Your task to perform on an android device: toggle notification dots Image 0: 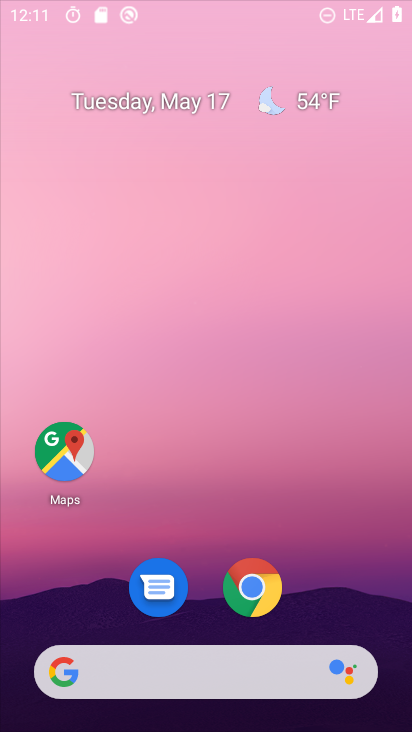
Step 0: click (235, 319)
Your task to perform on an android device: toggle notification dots Image 1: 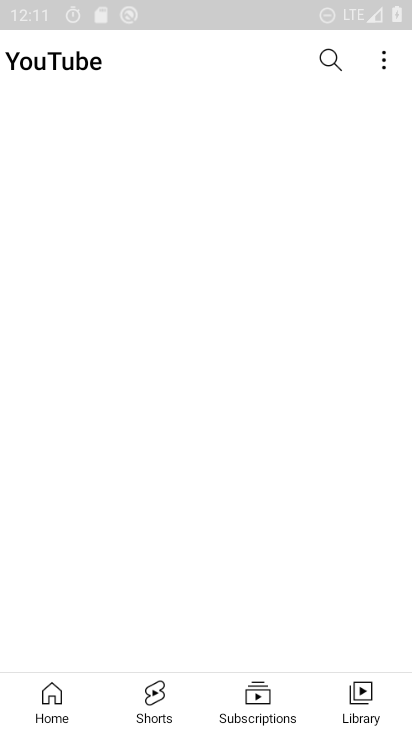
Step 1: drag from (218, 615) to (316, 97)
Your task to perform on an android device: toggle notification dots Image 2: 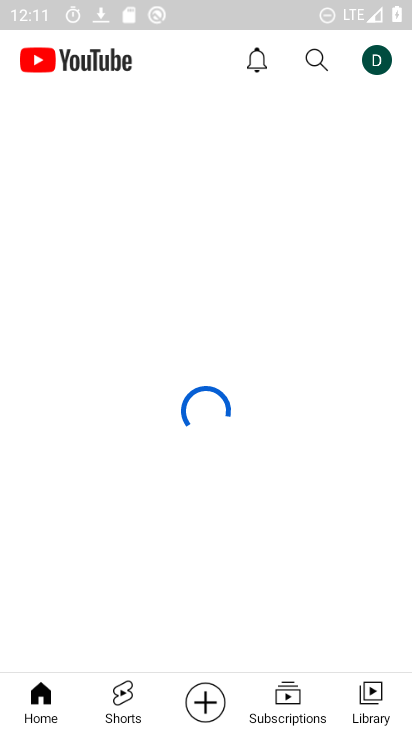
Step 2: press home button
Your task to perform on an android device: toggle notification dots Image 3: 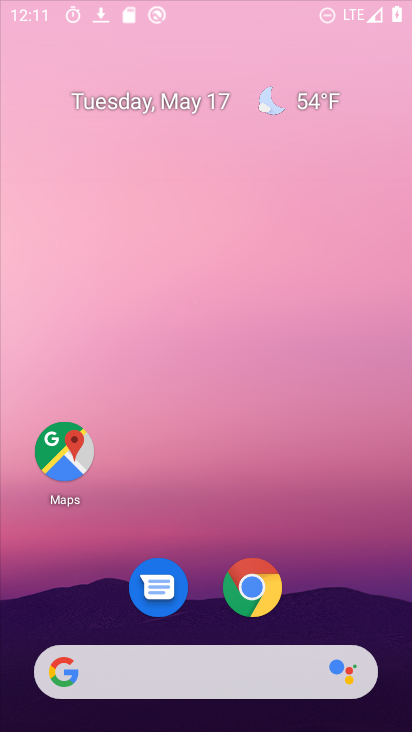
Step 3: drag from (183, 629) to (209, 41)
Your task to perform on an android device: toggle notification dots Image 4: 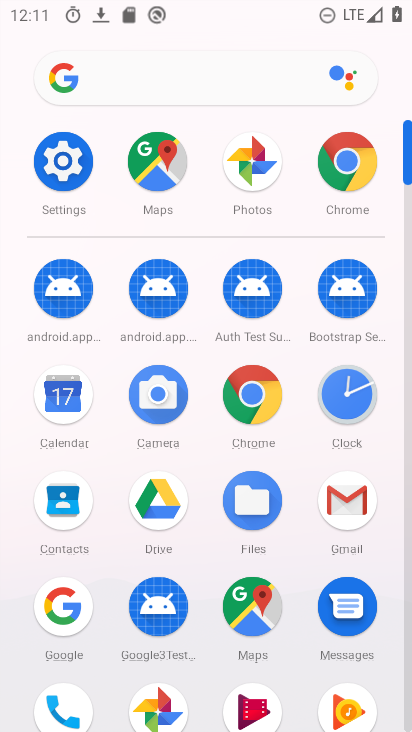
Step 4: click (55, 168)
Your task to perform on an android device: toggle notification dots Image 5: 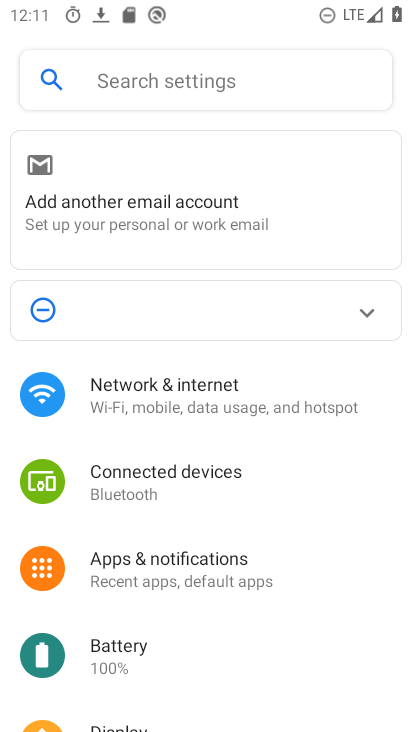
Step 5: drag from (187, 567) to (297, 96)
Your task to perform on an android device: toggle notification dots Image 6: 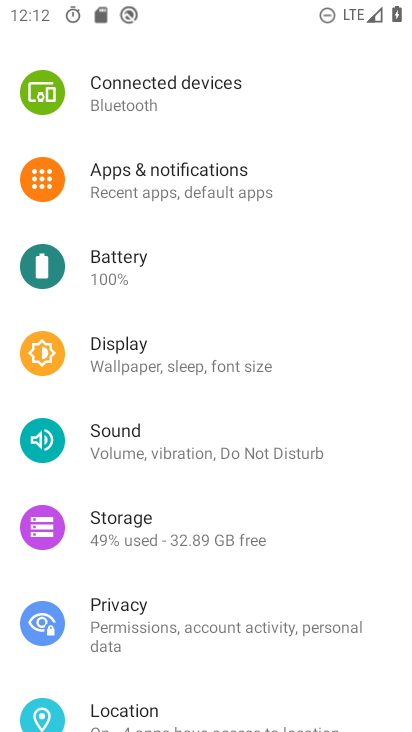
Step 6: click (226, 209)
Your task to perform on an android device: toggle notification dots Image 7: 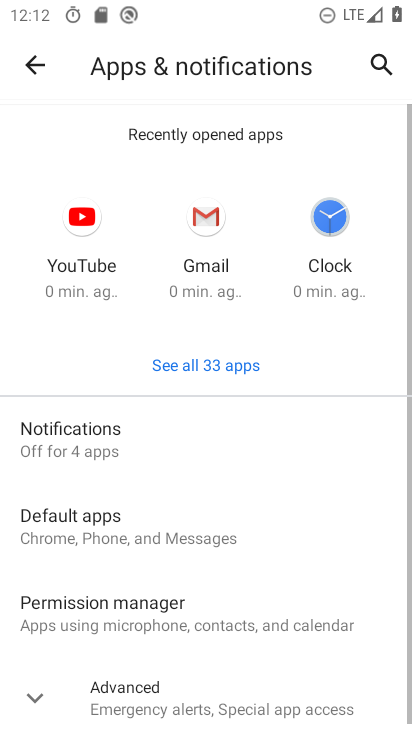
Step 7: drag from (198, 534) to (230, 192)
Your task to perform on an android device: toggle notification dots Image 8: 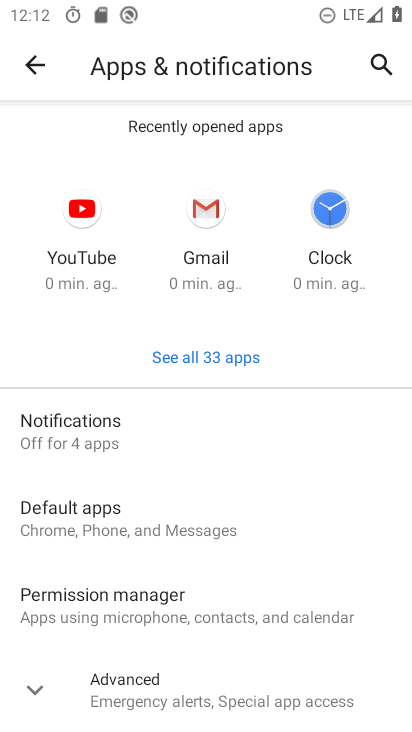
Step 8: click (127, 687)
Your task to perform on an android device: toggle notification dots Image 9: 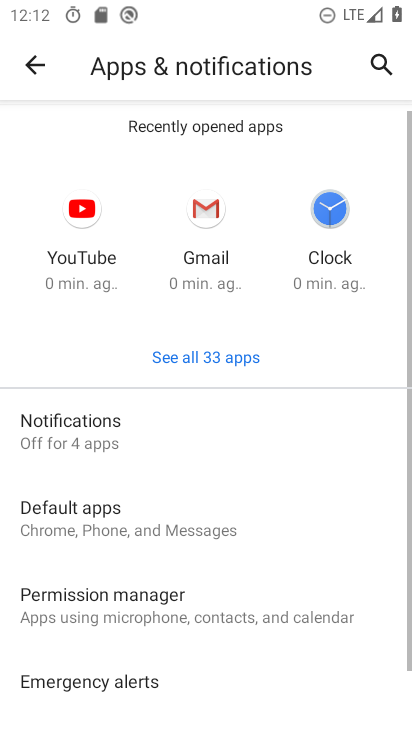
Step 9: drag from (126, 681) to (197, 238)
Your task to perform on an android device: toggle notification dots Image 10: 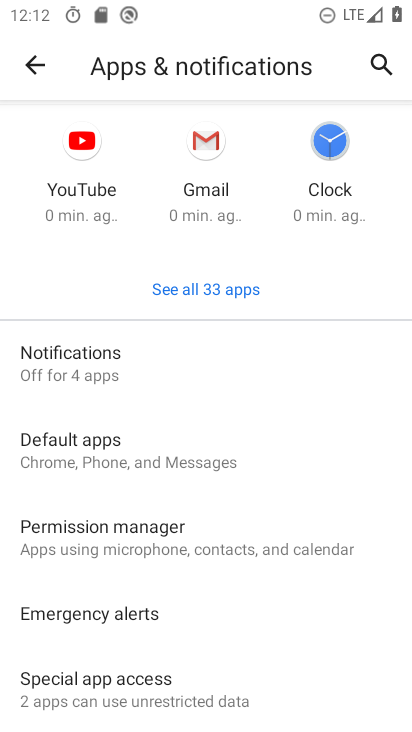
Step 10: click (170, 333)
Your task to perform on an android device: toggle notification dots Image 11: 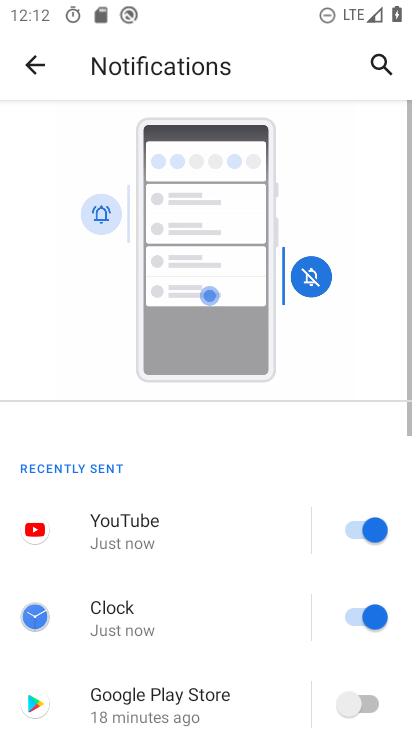
Step 11: drag from (277, 640) to (324, 238)
Your task to perform on an android device: toggle notification dots Image 12: 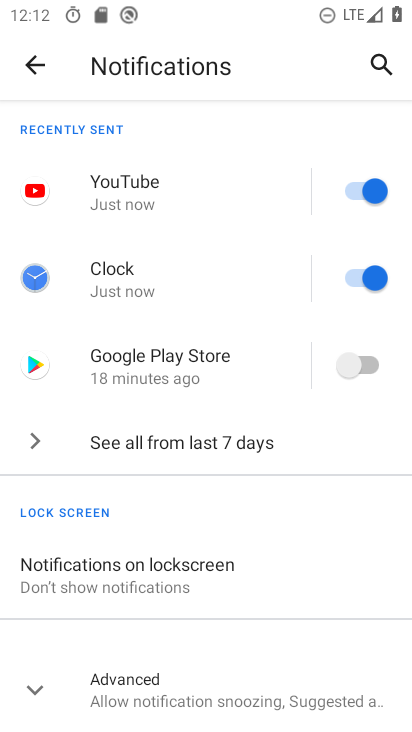
Step 12: click (172, 701)
Your task to perform on an android device: toggle notification dots Image 13: 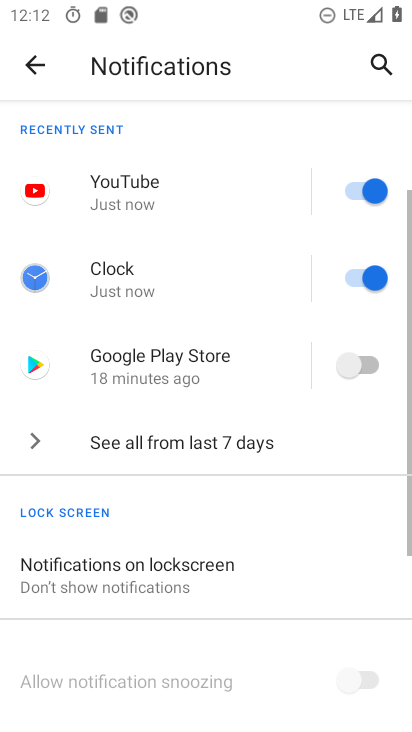
Step 13: drag from (176, 690) to (288, 228)
Your task to perform on an android device: toggle notification dots Image 14: 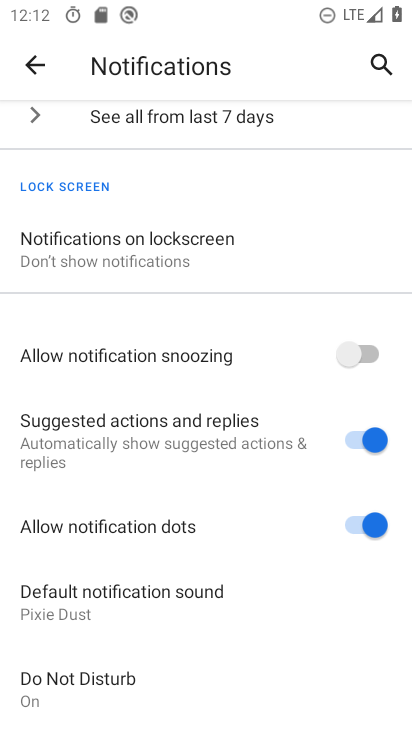
Step 14: click (360, 519)
Your task to perform on an android device: toggle notification dots Image 15: 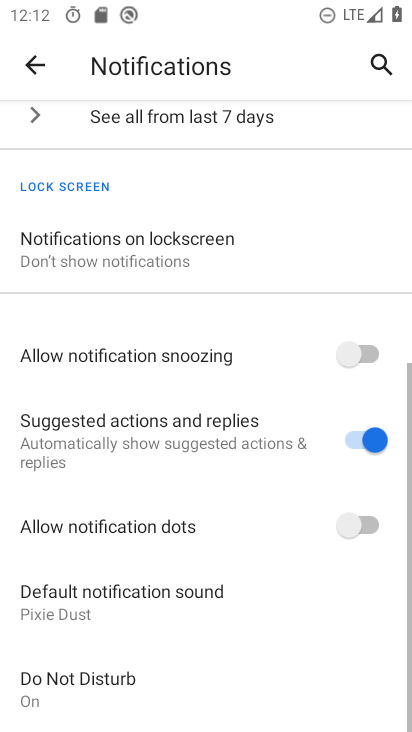
Step 15: task complete